Your task to perform on an android device: turn on priority inbox in the gmail app Image 0: 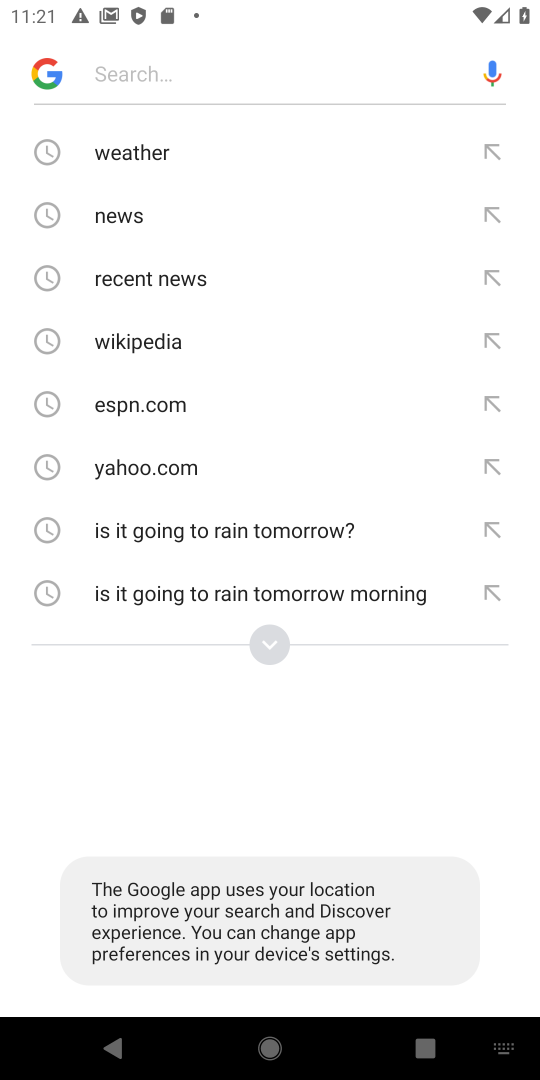
Step 0: press home button
Your task to perform on an android device: turn on priority inbox in the gmail app Image 1: 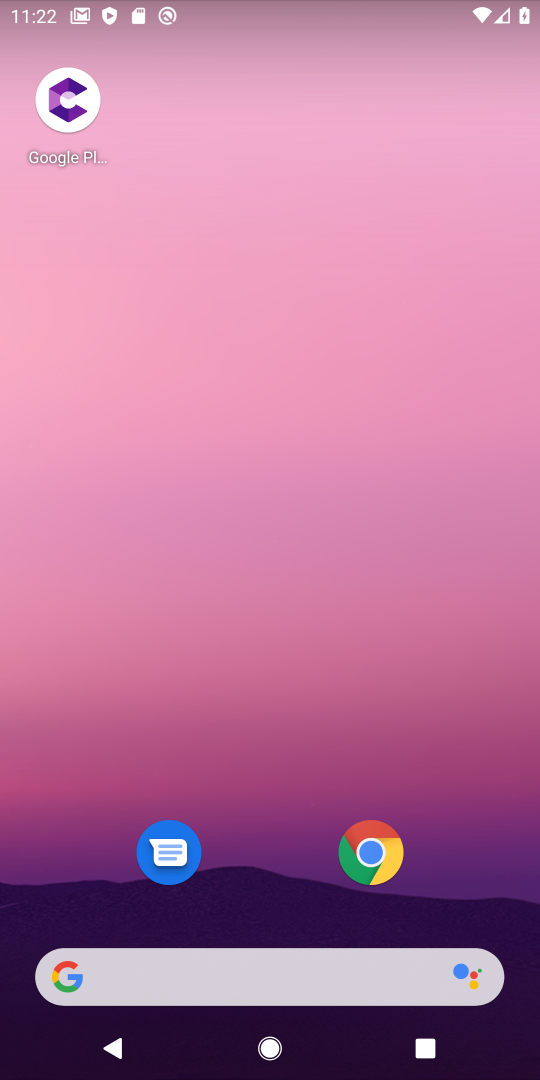
Step 1: task complete